Your task to perform on an android device: What's on my calendar tomorrow? Image 0: 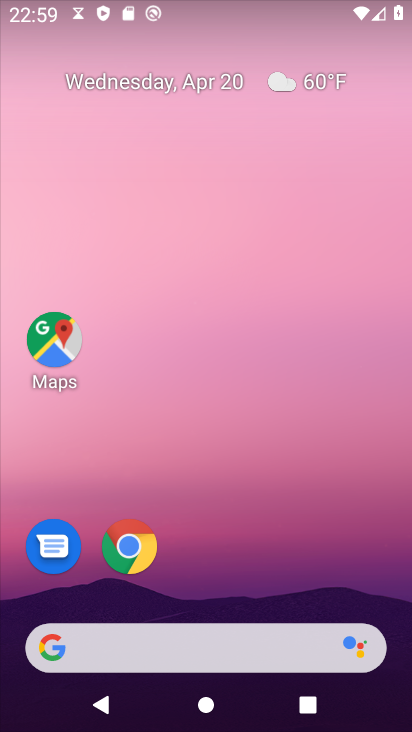
Step 0: drag from (269, 322) to (269, 37)
Your task to perform on an android device: What's on my calendar tomorrow? Image 1: 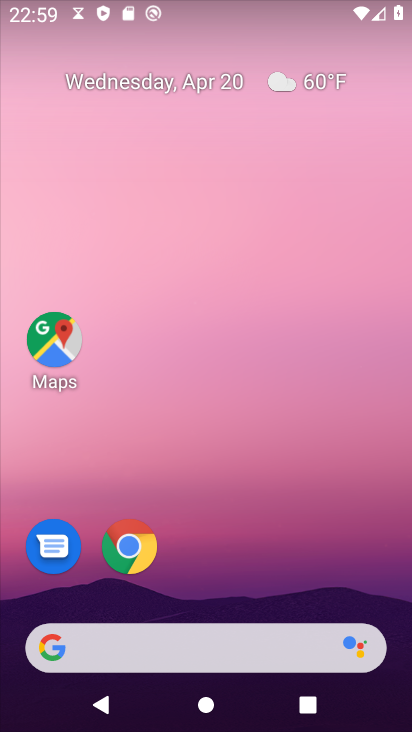
Step 1: drag from (220, 551) to (222, 38)
Your task to perform on an android device: What's on my calendar tomorrow? Image 2: 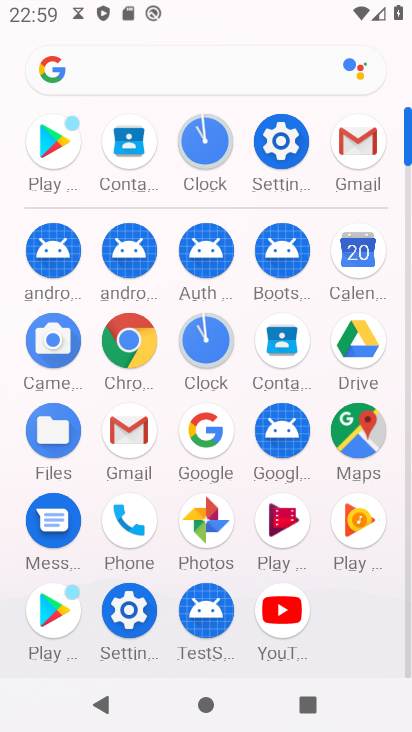
Step 2: click (352, 253)
Your task to perform on an android device: What's on my calendar tomorrow? Image 3: 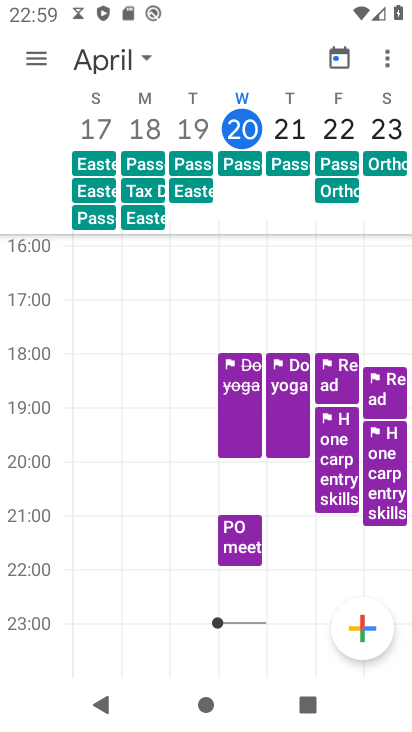
Step 3: click (145, 56)
Your task to perform on an android device: What's on my calendar tomorrow? Image 4: 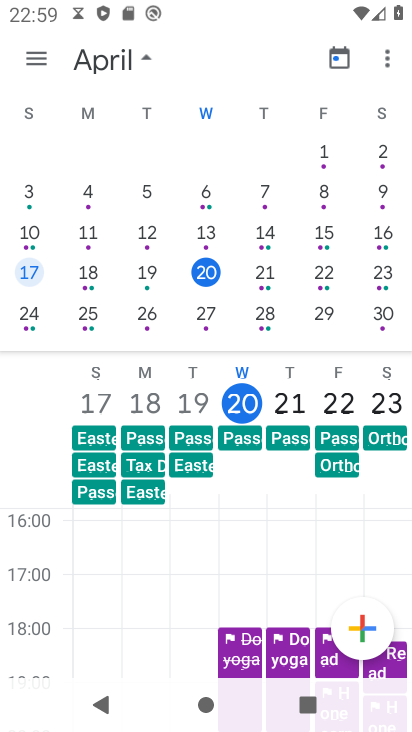
Step 4: click (26, 59)
Your task to perform on an android device: What's on my calendar tomorrow? Image 5: 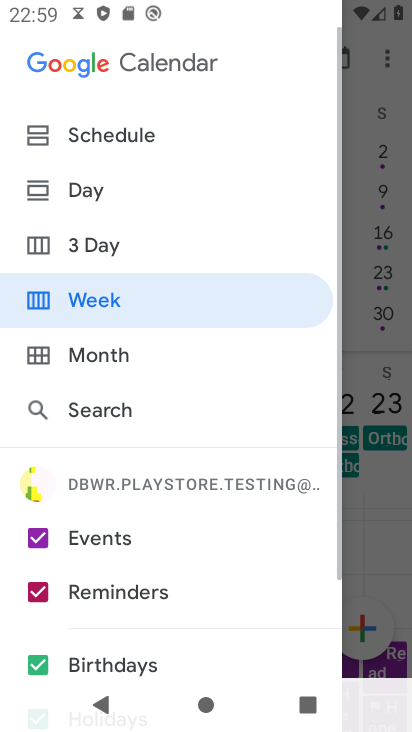
Step 5: click (88, 190)
Your task to perform on an android device: What's on my calendar tomorrow? Image 6: 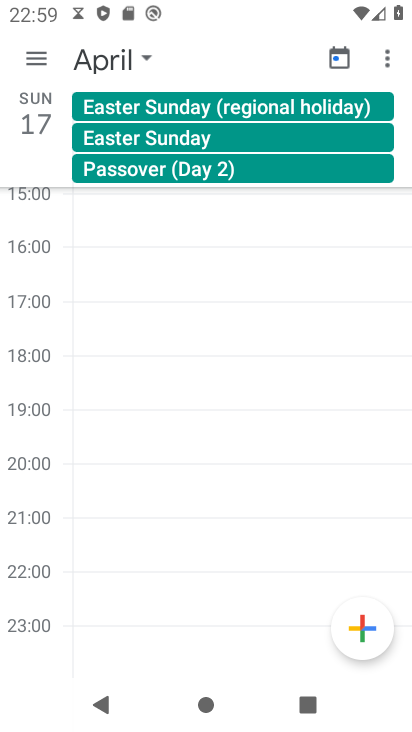
Step 6: click (142, 56)
Your task to perform on an android device: What's on my calendar tomorrow? Image 7: 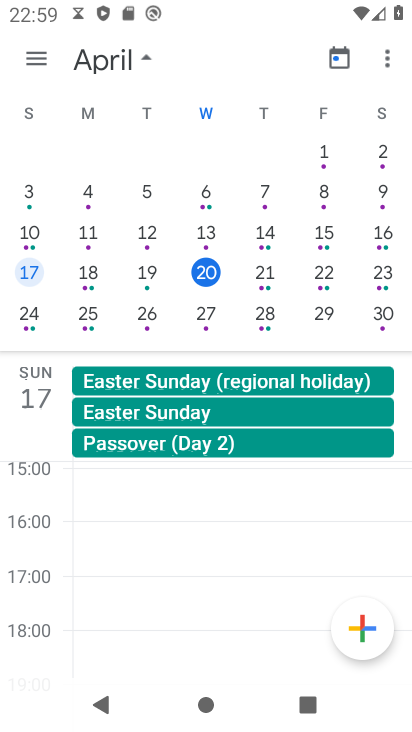
Step 7: click (266, 266)
Your task to perform on an android device: What's on my calendar tomorrow? Image 8: 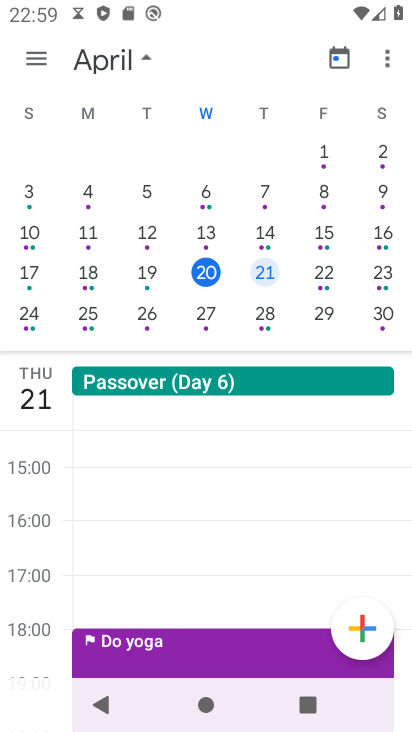
Step 8: task complete